Your task to perform on an android device: turn off location history Image 0: 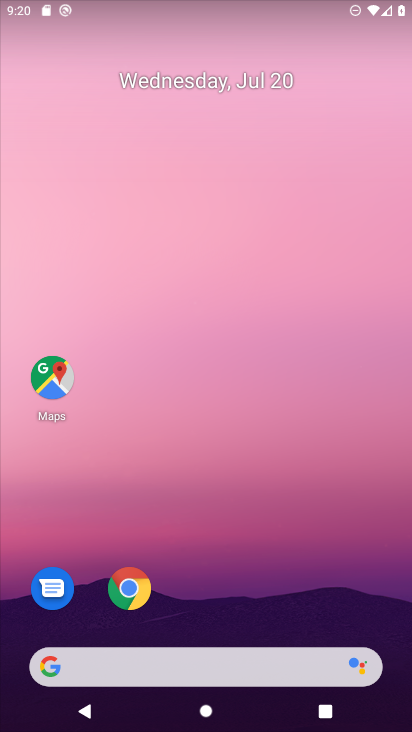
Step 0: drag from (226, 138) to (230, 77)
Your task to perform on an android device: turn off location history Image 1: 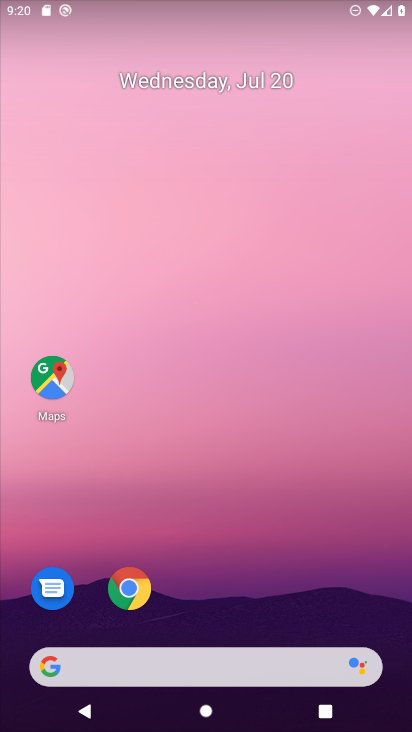
Step 1: drag from (188, 623) to (293, 19)
Your task to perform on an android device: turn off location history Image 2: 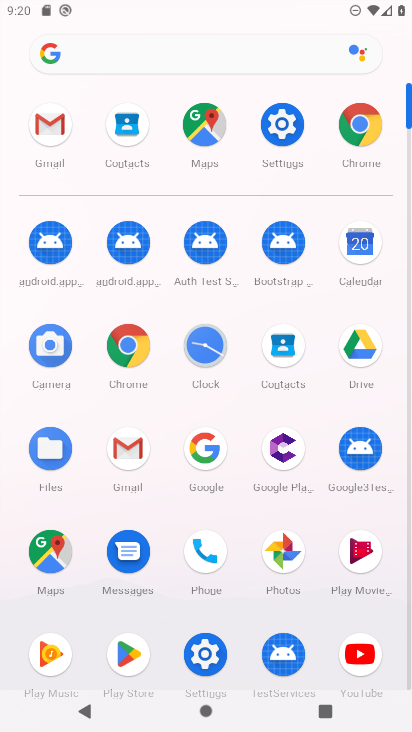
Step 2: click (283, 155)
Your task to perform on an android device: turn off location history Image 3: 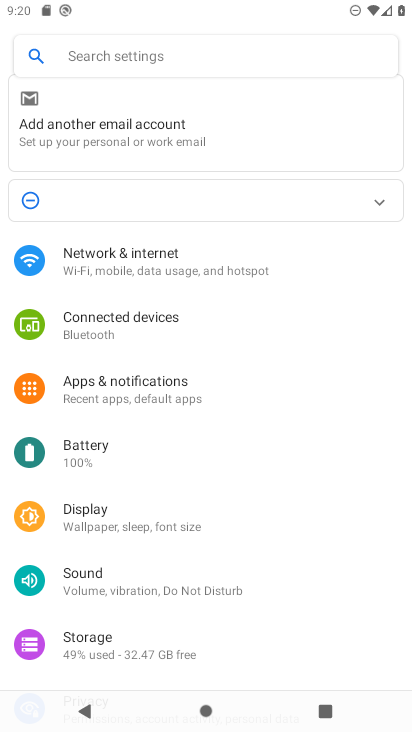
Step 3: drag from (90, 601) to (122, 219)
Your task to perform on an android device: turn off location history Image 4: 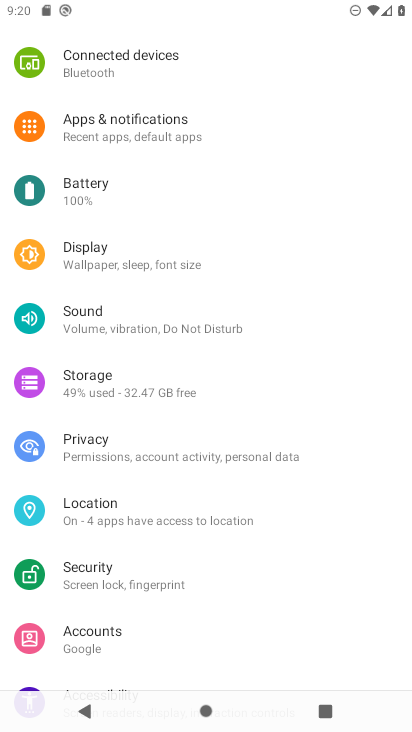
Step 4: click (138, 521)
Your task to perform on an android device: turn off location history Image 5: 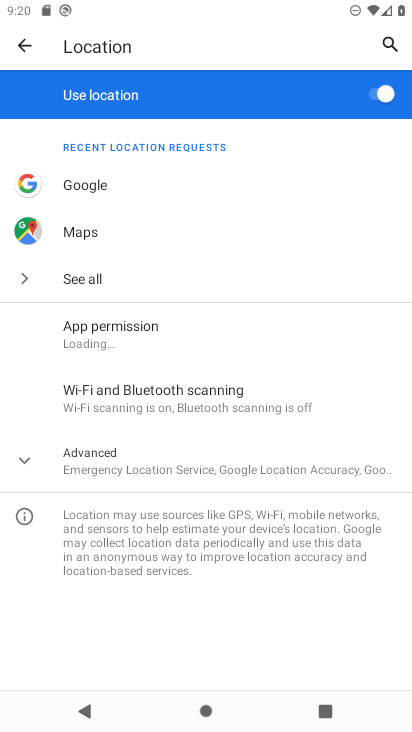
Step 5: click (162, 476)
Your task to perform on an android device: turn off location history Image 6: 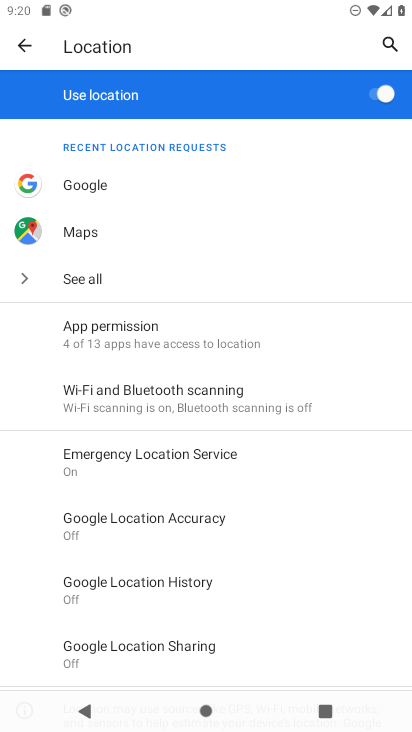
Step 6: click (216, 605)
Your task to perform on an android device: turn off location history Image 7: 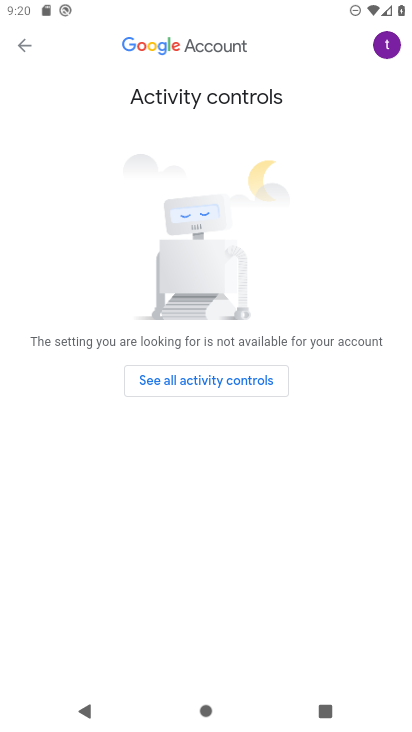
Step 7: task complete